Your task to perform on an android device: Do I have any events this weekend? Image 0: 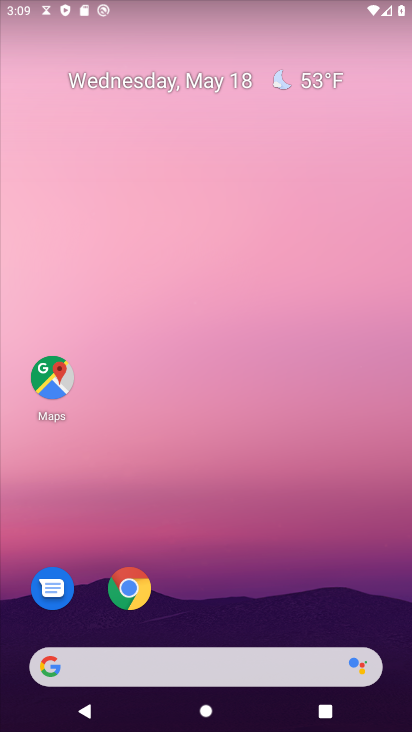
Step 0: press home button
Your task to perform on an android device: Do I have any events this weekend? Image 1: 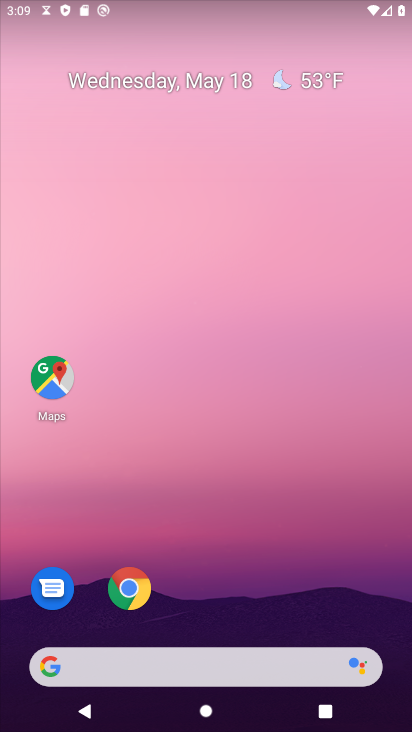
Step 1: drag from (259, 560) to (259, 518)
Your task to perform on an android device: Do I have any events this weekend? Image 2: 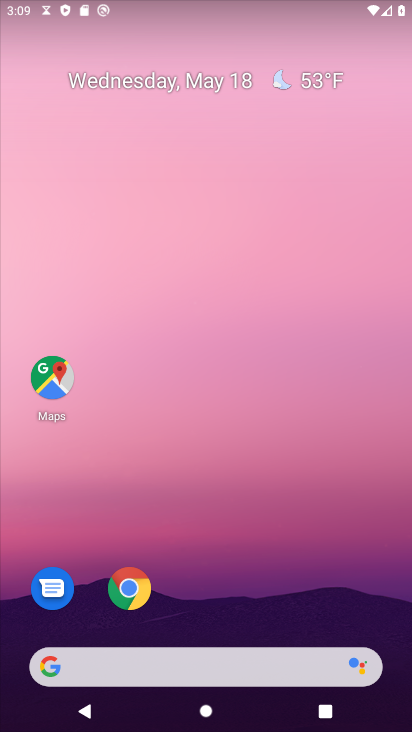
Step 2: drag from (324, 586) to (354, 60)
Your task to perform on an android device: Do I have any events this weekend? Image 3: 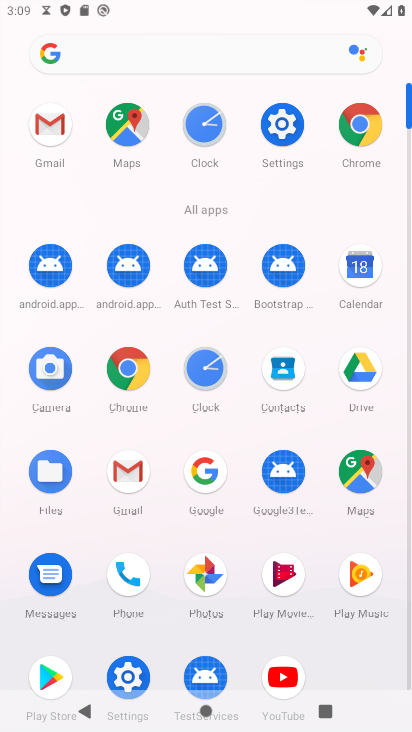
Step 3: click (373, 283)
Your task to perform on an android device: Do I have any events this weekend? Image 4: 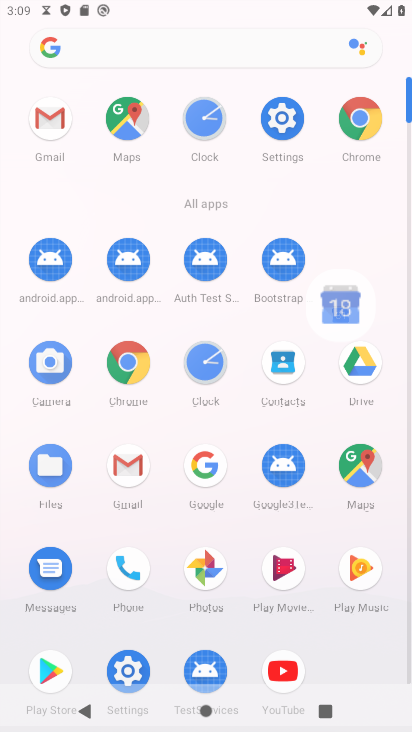
Step 4: click (373, 283)
Your task to perform on an android device: Do I have any events this weekend? Image 5: 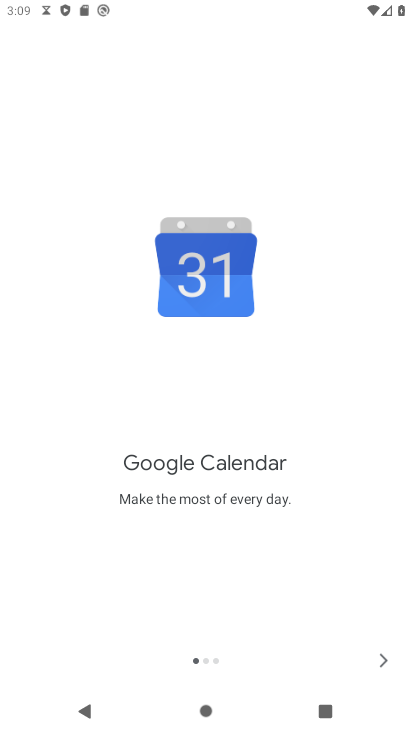
Step 5: click (373, 662)
Your task to perform on an android device: Do I have any events this weekend? Image 6: 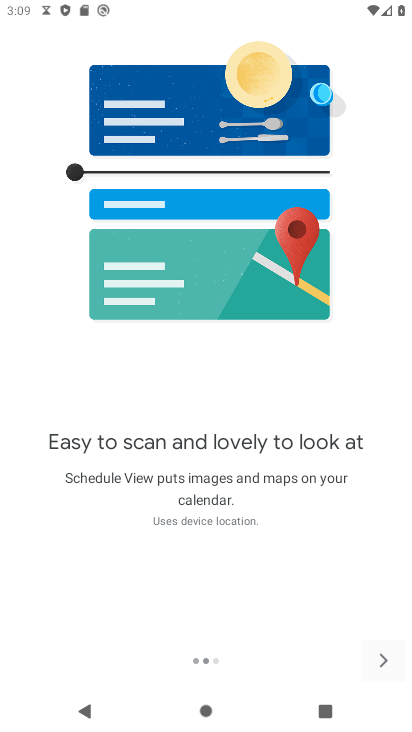
Step 6: click (373, 662)
Your task to perform on an android device: Do I have any events this weekend? Image 7: 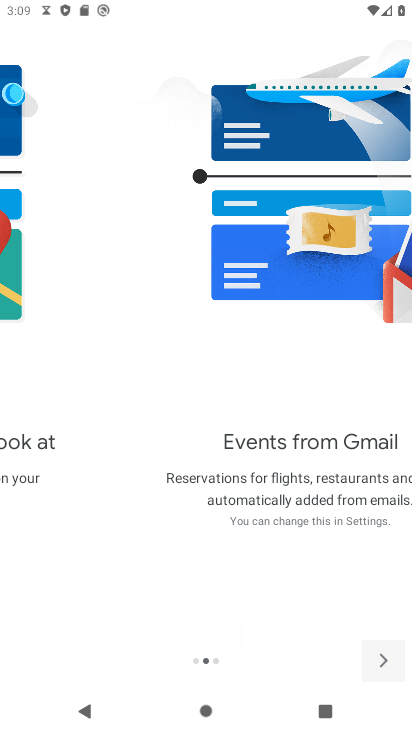
Step 7: click (373, 662)
Your task to perform on an android device: Do I have any events this weekend? Image 8: 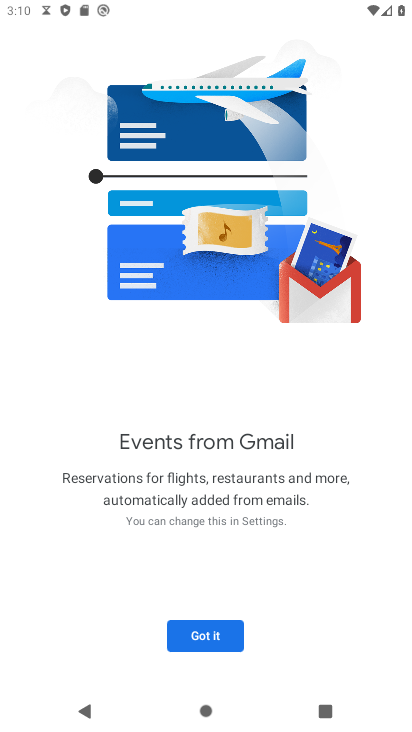
Step 8: click (196, 639)
Your task to perform on an android device: Do I have any events this weekend? Image 9: 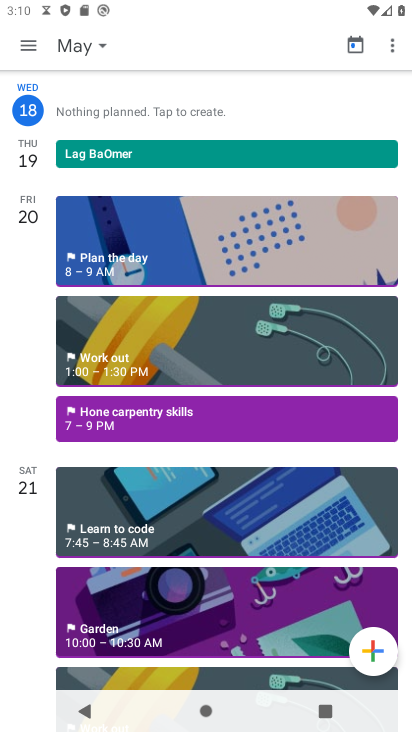
Step 9: click (98, 51)
Your task to perform on an android device: Do I have any events this weekend? Image 10: 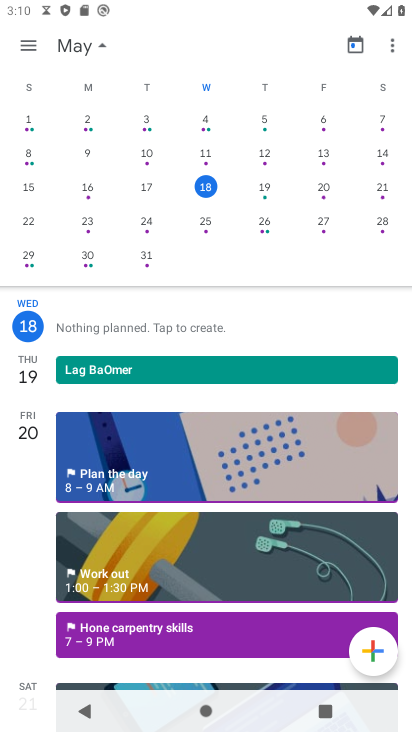
Step 10: click (98, 51)
Your task to perform on an android device: Do I have any events this weekend? Image 11: 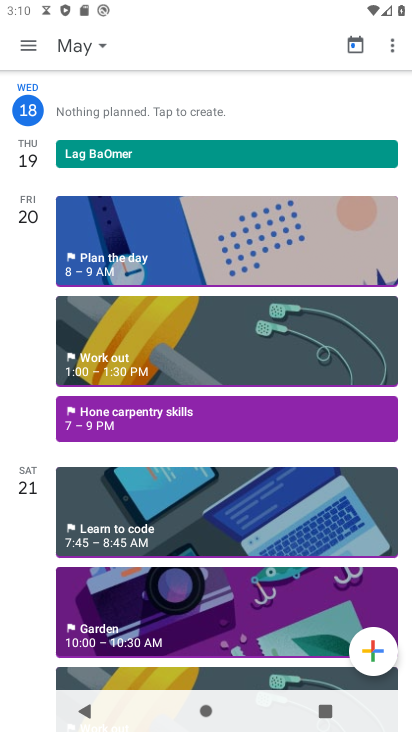
Step 11: task complete